Your task to perform on an android device: Go to accessibility settings Image 0: 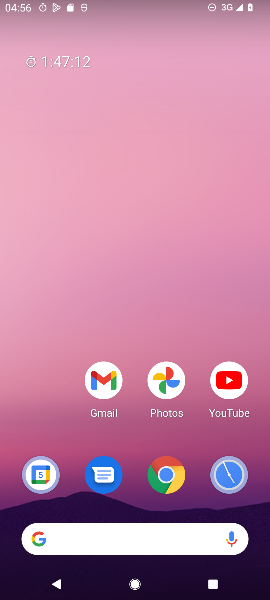
Step 0: press home button
Your task to perform on an android device: Go to accessibility settings Image 1: 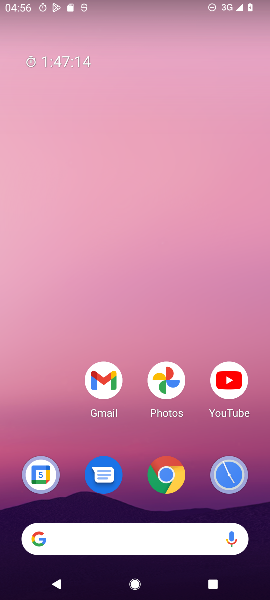
Step 1: drag from (59, 433) to (53, 224)
Your task to perform on an android device: Go to accessibility settings Image 2: 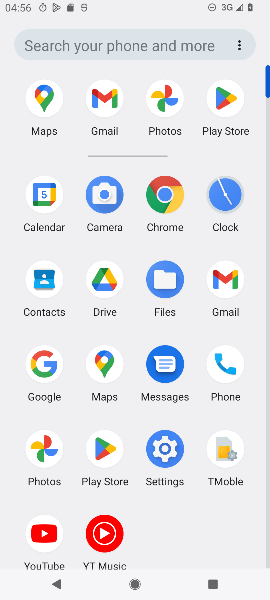
Step 2: click (162, 452)
Your task to perform on an android device: Go to accessibility settings Image 3: 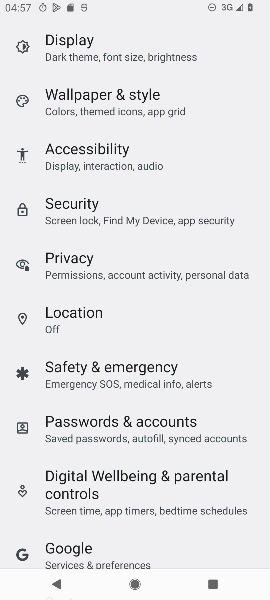
Step 3: drag from (247, 308) to (240, 388)
Your task to perform on an android device: Go to accessibility settings Image 4: 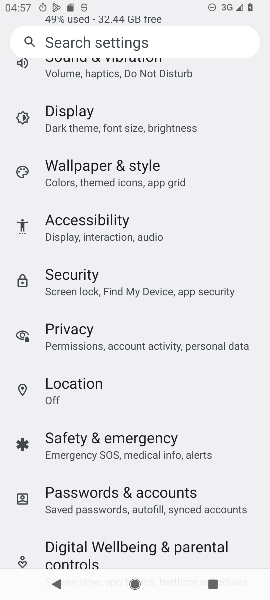
Step 4: drag from (229, 232) to (233, 337)
Your task to perform on an android device: Go to accessibility settings Image 5: 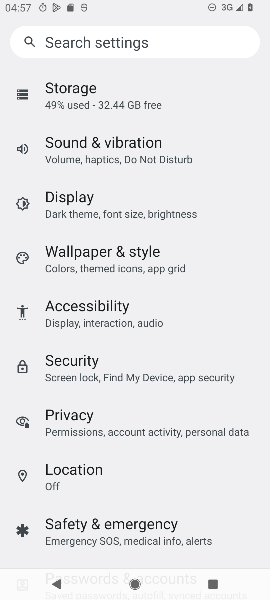
Step 5: drag from (236, 199) to (244, 319)
Your task to perform on an android device: Go to accessibility settings Image 6: 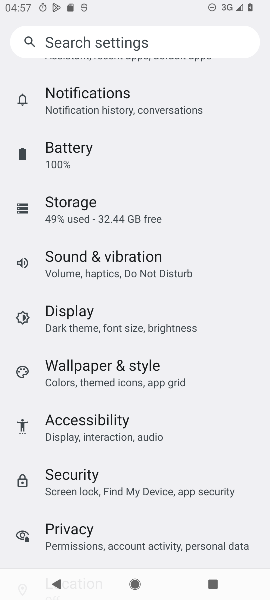
Step 6: drag from (244, 188) to (244, 282)
Your task to perform on an android device: Go to accessibility settings Image 7: 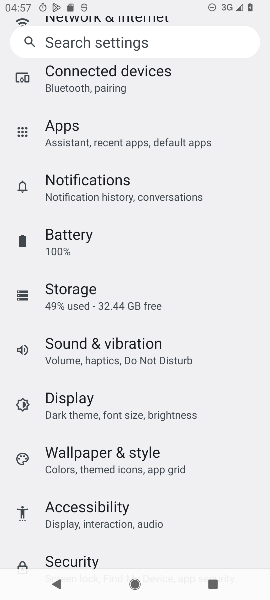
Step 7: click (151, 509)
Your task to perform on an android device: Go to accessibility settings Image 8: 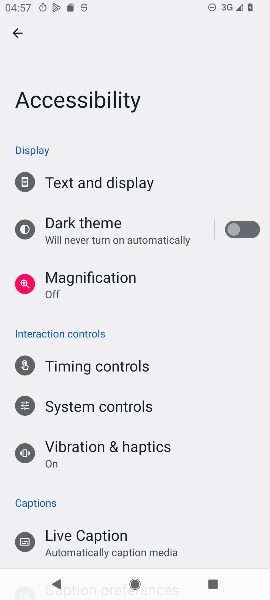
Step 8: task complete